Your task to perform on an android device: Check out the best rated electric trimmers on Lowe's Image 0: 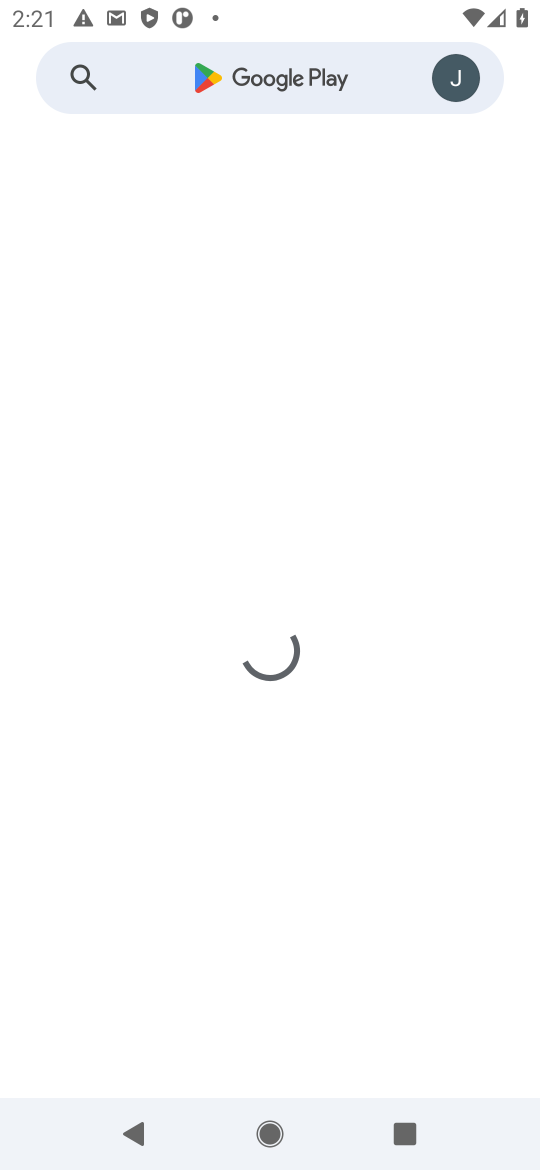
Step 0: press home button
Your task to perform on an android device: Check out the best rated electric trimmers on Lowe's Image 1: 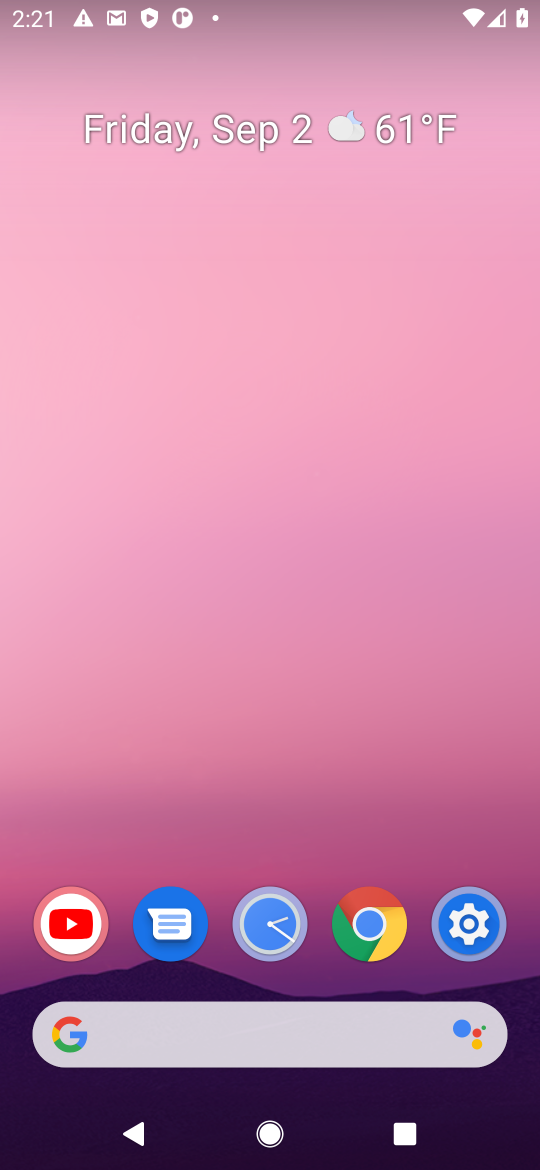
Step 1: click (382, 1025)
Your task to perform on an android device: Check out the best rated electric trimmers on Lowe's Image 2: 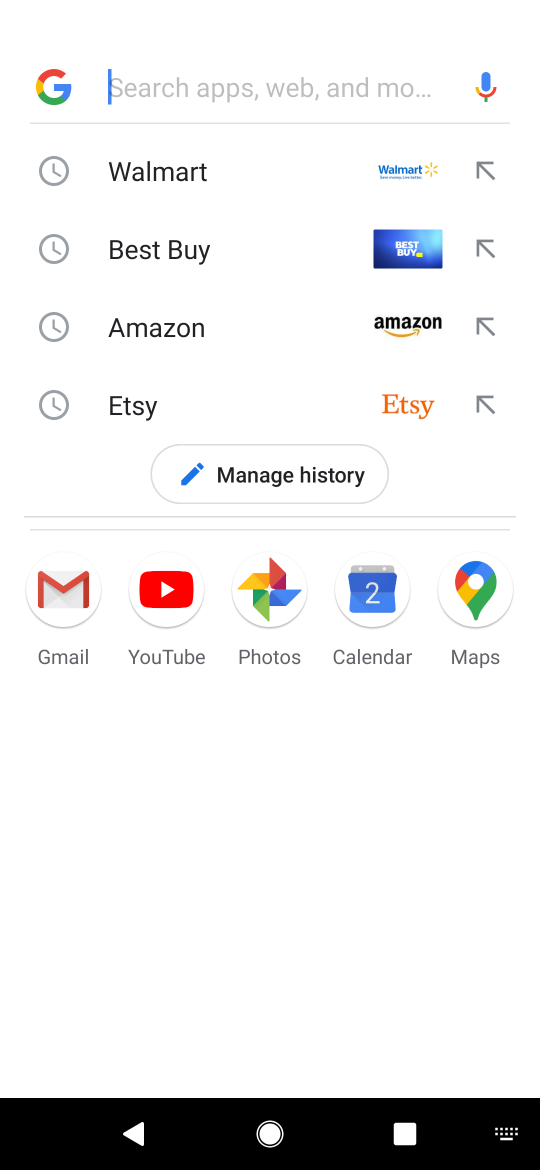
Step 2: press enter
Your task to perform on an android device: Check out the best rated electric trimmers on Lowe's Image 3: 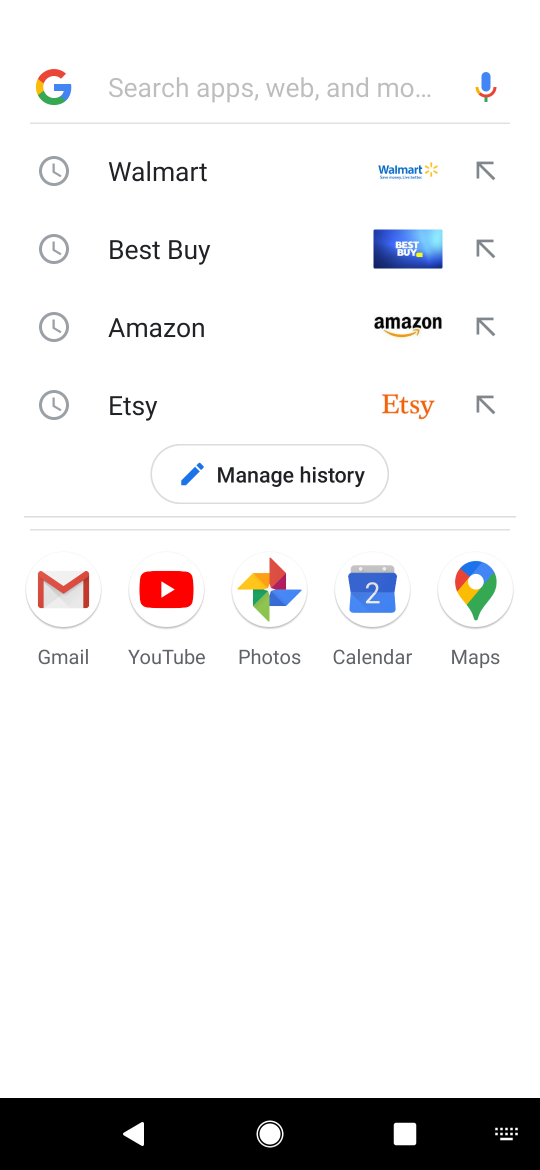
Step 3: type "lowes"
Your task to perform on an android device: Check out the best rated electric trimmers on Lowe's Image 4: 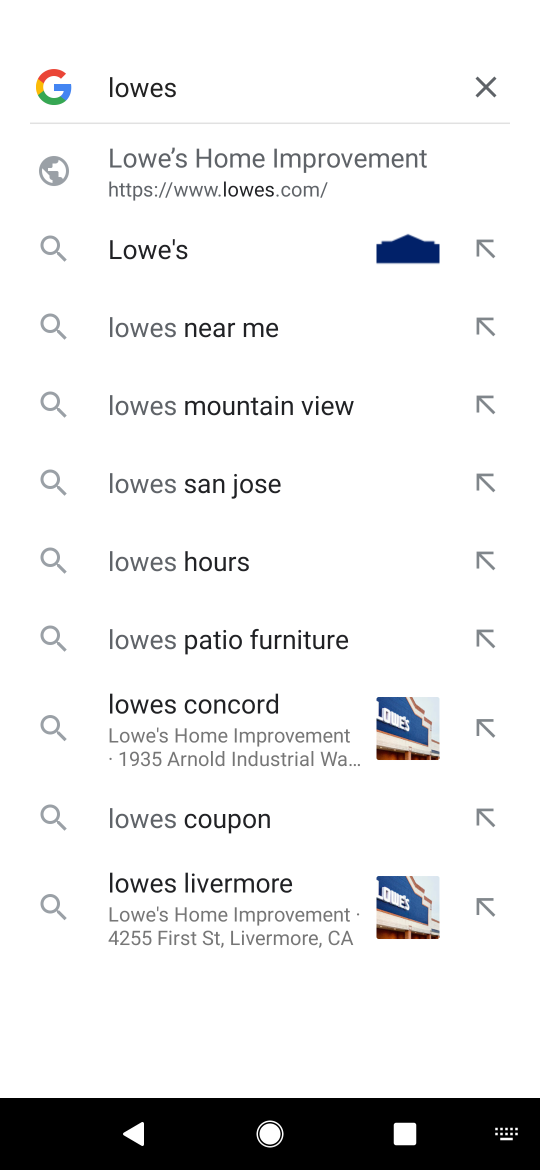
Step 4: click (183, 254)
Your task to perform on an android device: Check out the best rated electric trimmers on Lowe's Image 5: 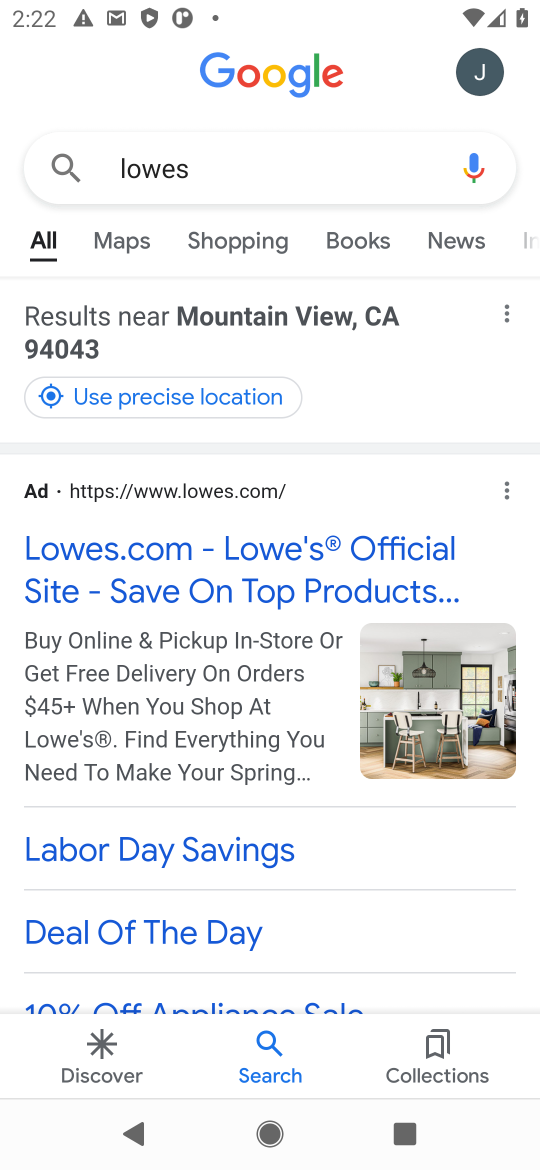
Step 5: click (266, 564)
Your task to perform on an android device: Check out the best rated electric trimmers on Lowe's Image 6: 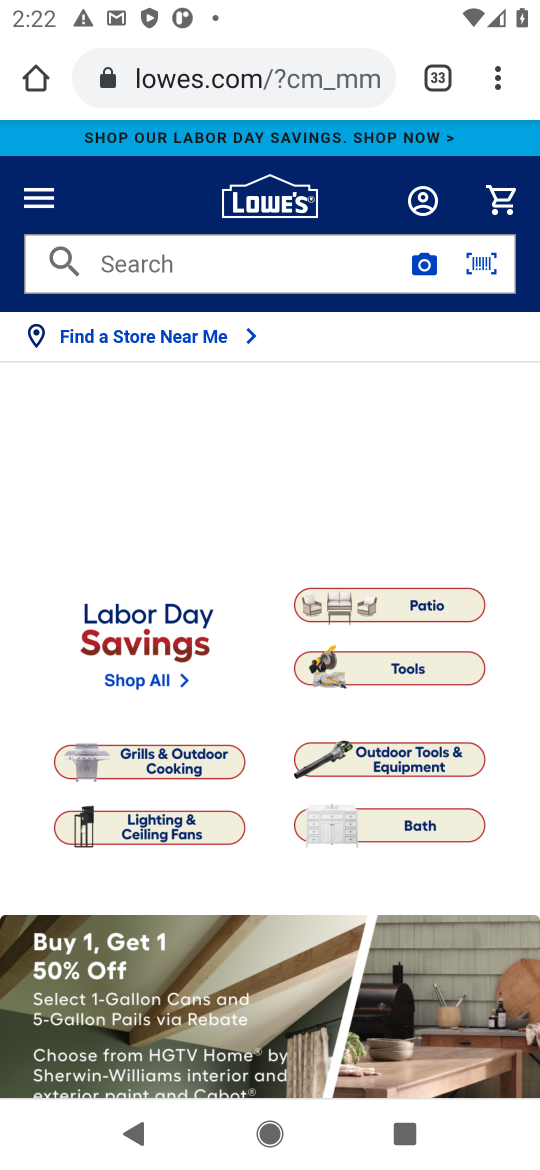
Step 6: click (243, 266)
Your task to perform on an android device: Check out the best rated electric trimmers on Lowe's Image 7: 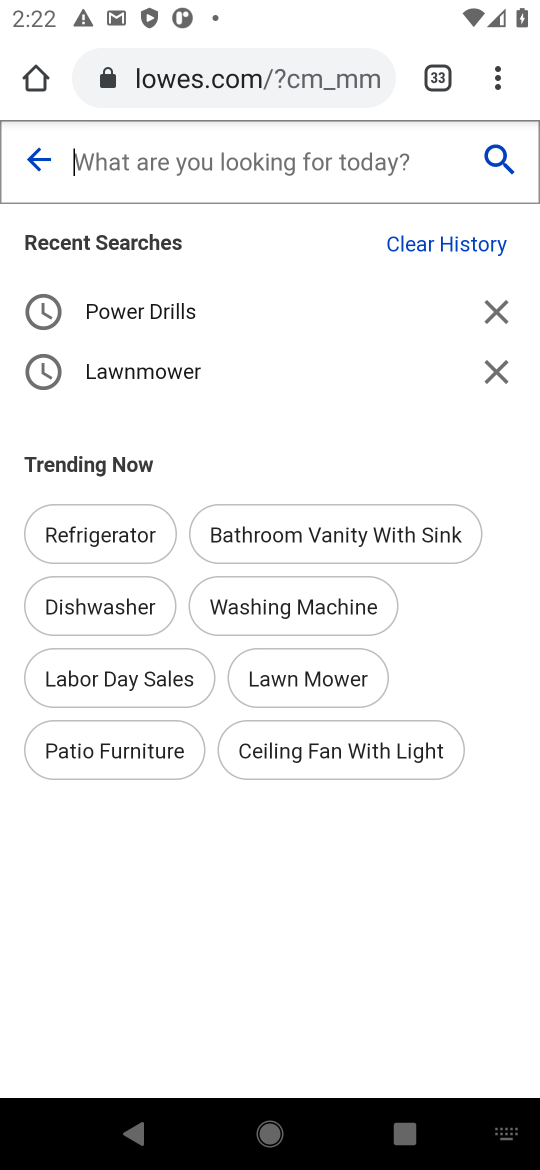
Step 7: type "electric trimmers"
Your task to perform on an android device: Check out the best rated electric trimmers on Lowe's Image 8: 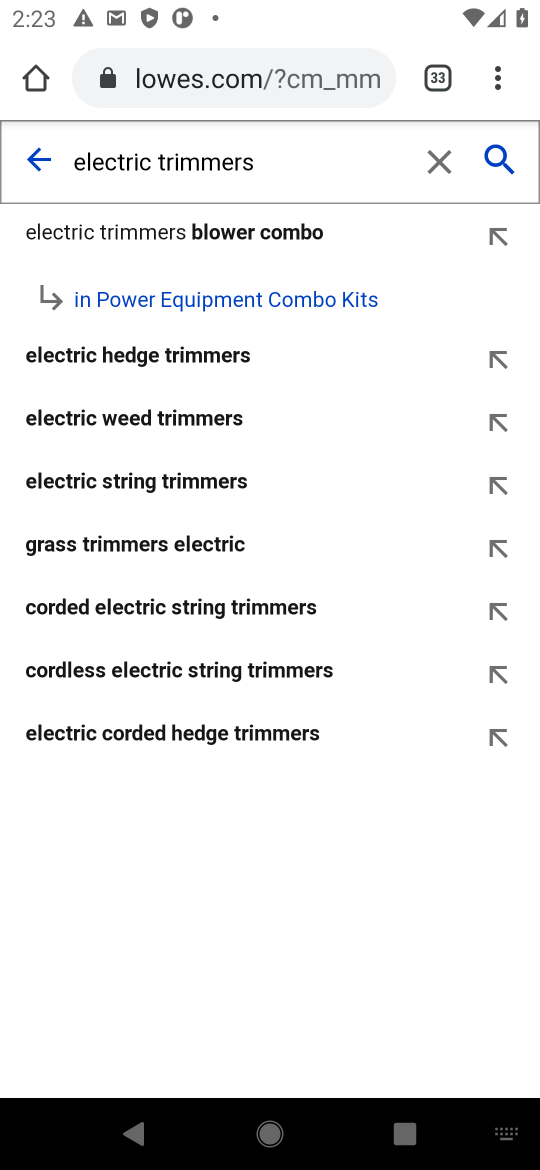
Step 8: click (500, 158)
Your task to perform on an android device: Check out the best rated electric trimmers on Lowe's Image 9: 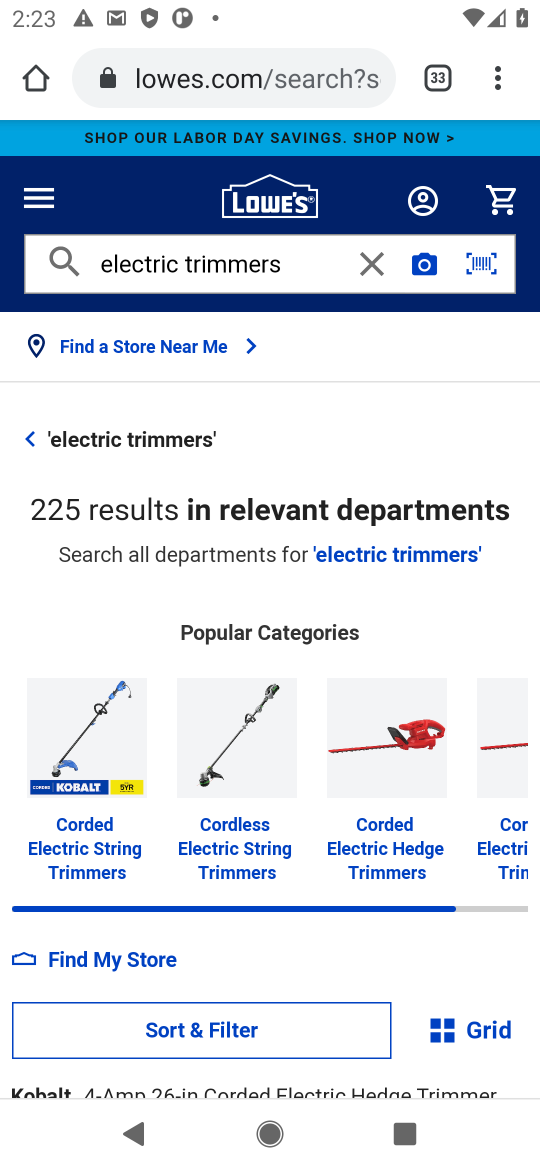
Step 9: task complete